Your task to perform on an android device: Open maps Image 0: 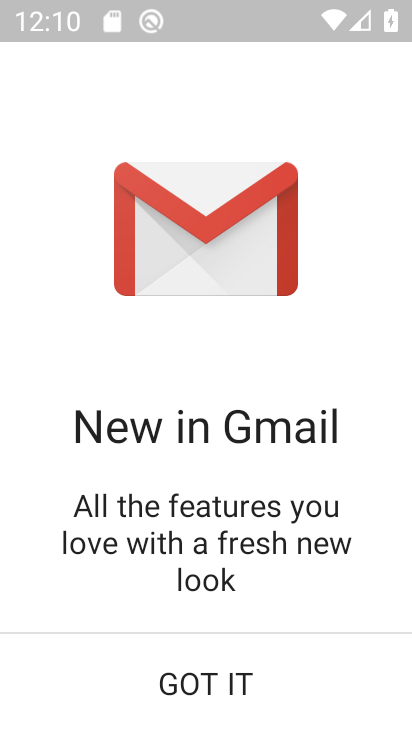
Step 0: press back button
Your task to perform on an android device: Open maps Image 1: 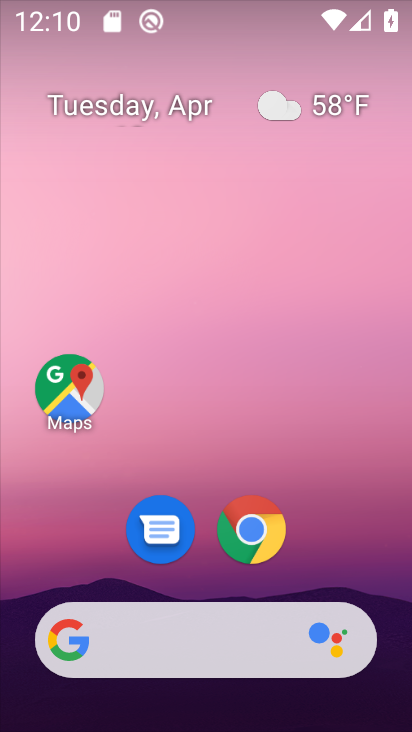
Step 1: click (61, 389)
Your task to perform on an android device: Open maps Image 2: 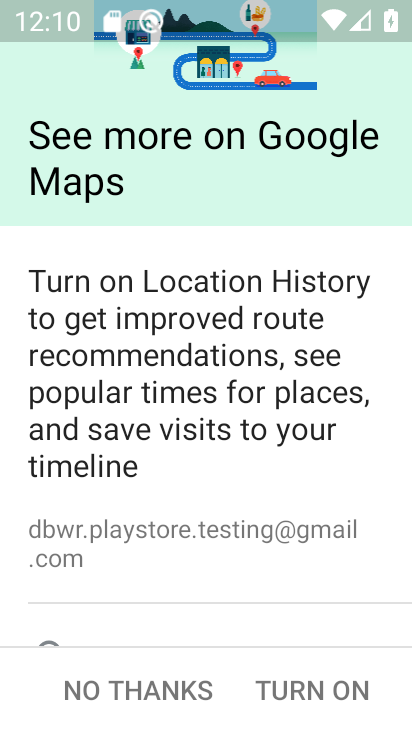
Step 2: click (169, 703)
Your task to perform on an android device: Open maps Image 3: 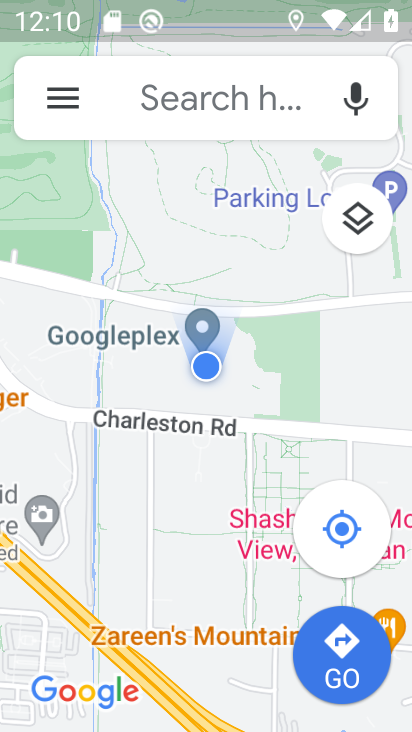
Step 3: task complete